Your task to perform on an android device: toggle notifications settings in the gmail app Image 0: 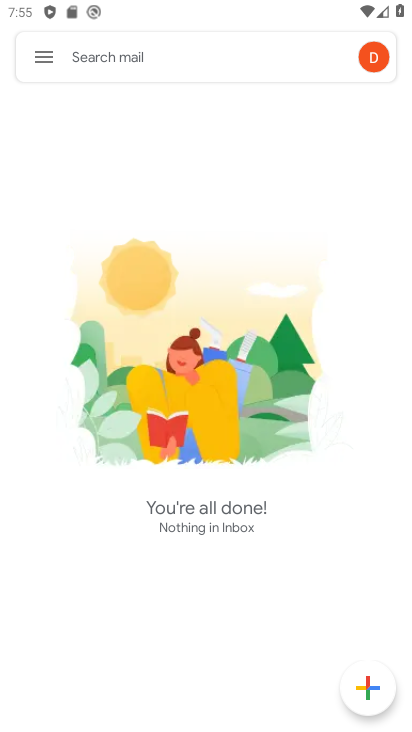
Step 0: click (47, 60)
Your task to perform on an android device: toggle notifications settings in the gmail app Image 1: 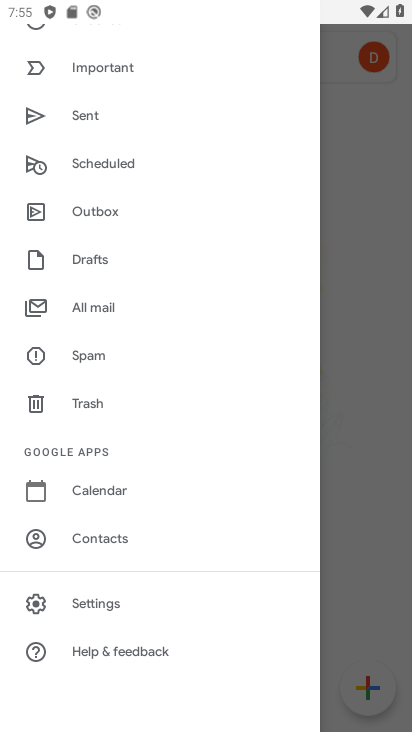
Step 1: click (105, 593)
Your task to perform on an android device: toggle notifications settings in the gmail app Image 2: 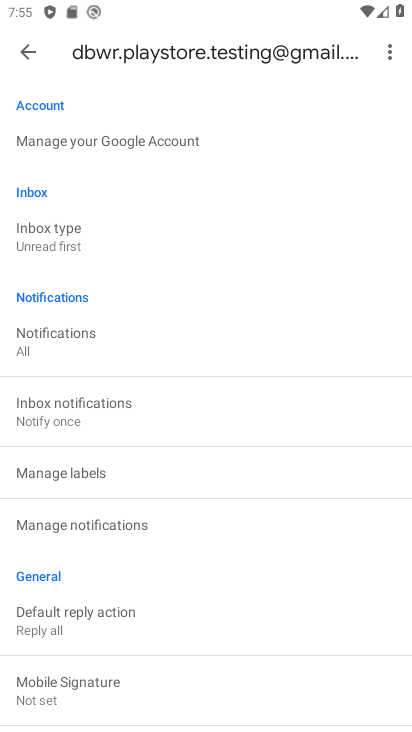
Step 2: click (110, 346)
Your task to perform on an android device: toggle notifications settings in the gmail app Image 3: 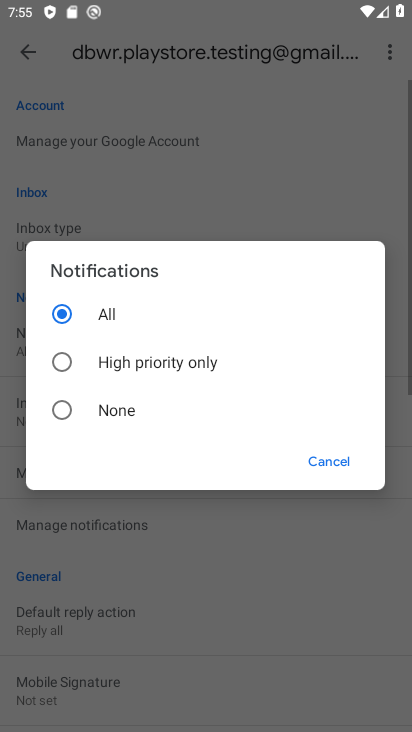
Step 3: click (168, 360)
Your task to perform on an android device: toggle notifications settings in the gmail app Image 4: 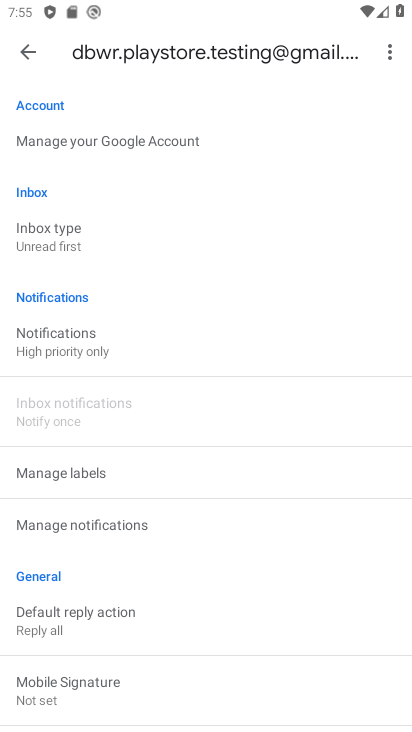
Step 4: task complete